Your task to perform on an android device: Open Chrome and go to settings Image 0: 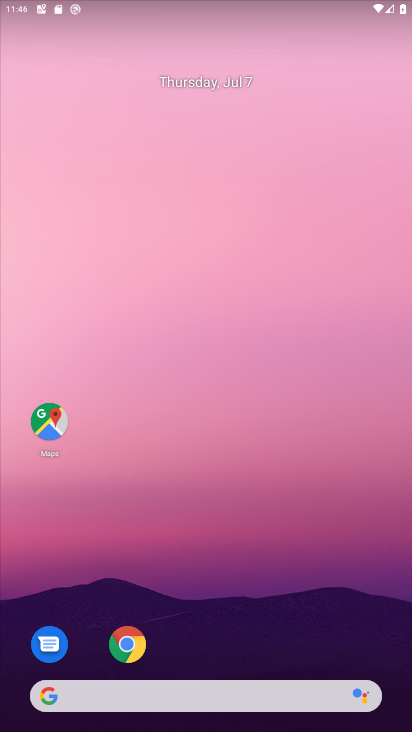
Step 0: click (134, 654)
Your task to perform on an android device: Open Chrome and go to settings Image 1: 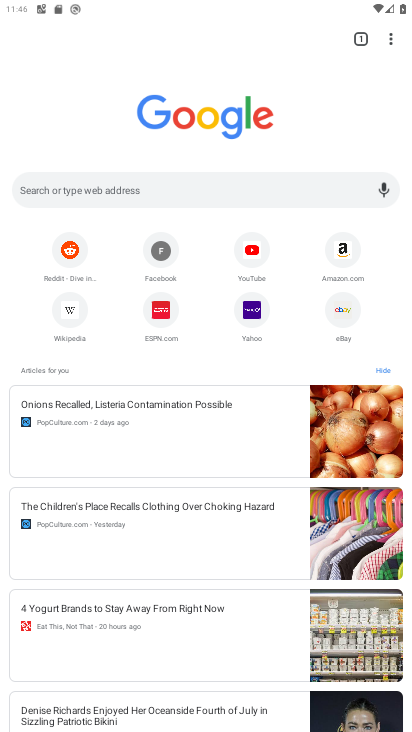
Step 1: click (386, 35)
Your task to perform on an android device: Open Chrome and go to settings Image 2: 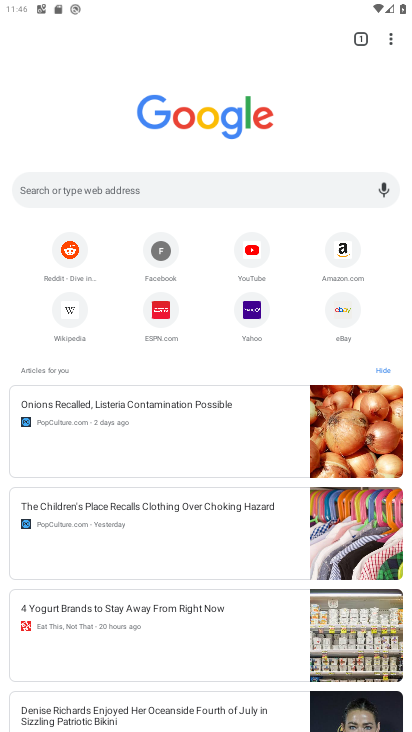
Step 2: click (386, 30)
Your task to perform on an android device: Open Chrome and go to settings Image 3: 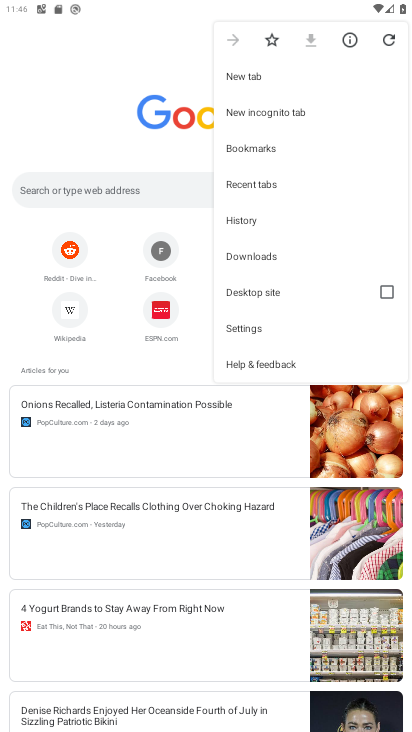
Step 3: click (246, 325)
Your task to perform on an android device: Open Chrome and go to settings Image 4: 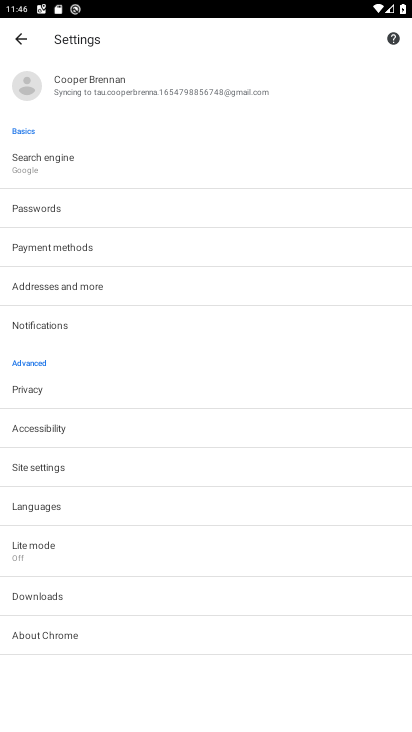
Step 4: task complete